Your task to perform on an android device: delete location history Image 0: 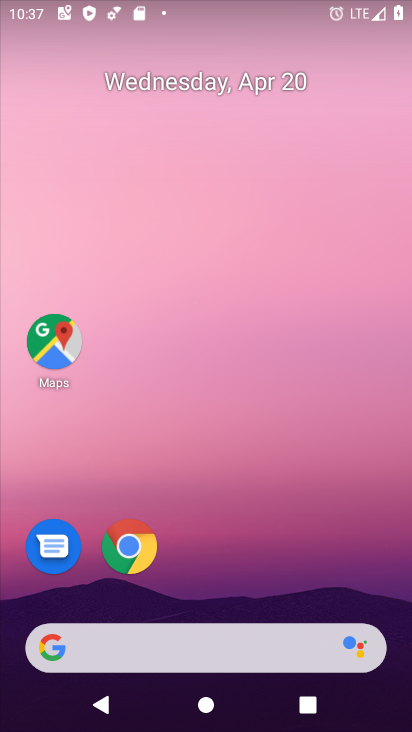
Step 0: drag from (222, 567) to (137, 218)
Your task to perform on an android device: delete location history Image 1: 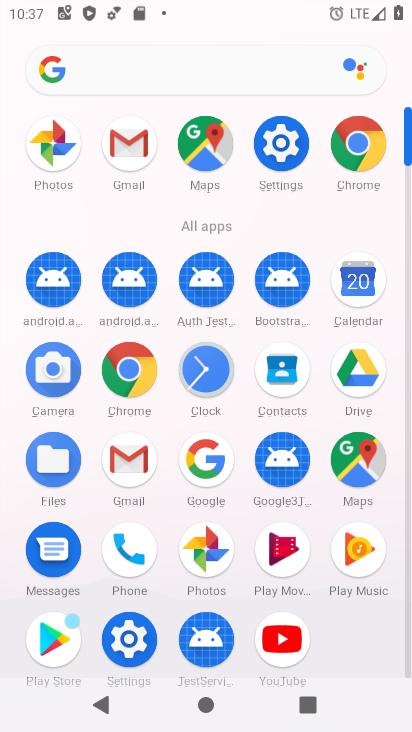
Step 1: click (359, 470)
Your task to perform on an android device: delete location history Image 2: 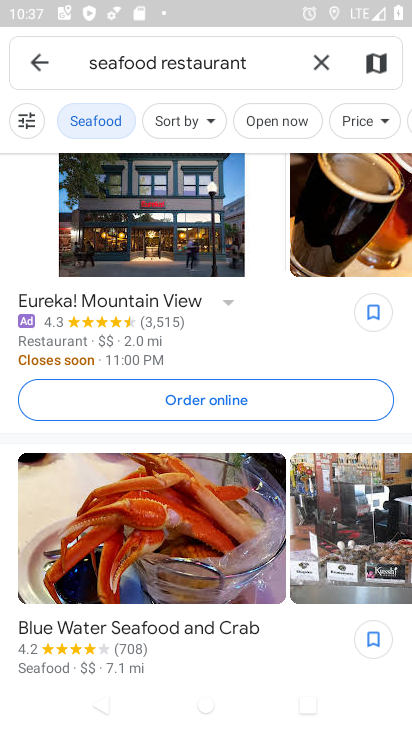
Step 2: click (37, 67)
Your task to perform on an android device: delete location history Image 3: 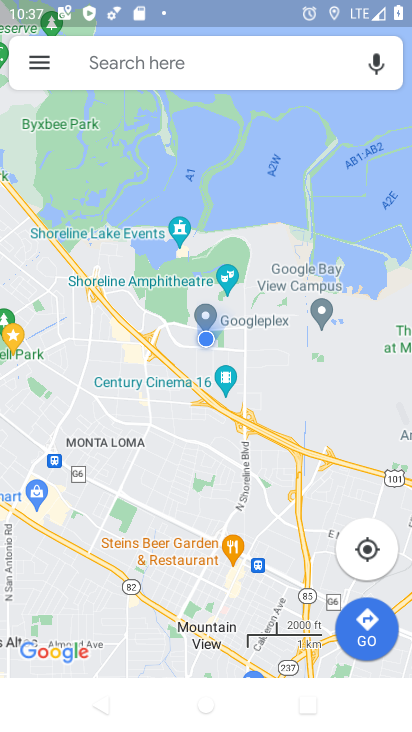
Step 3: click (37, 67)
Your task to perform on an android device: delete location history Image 4: 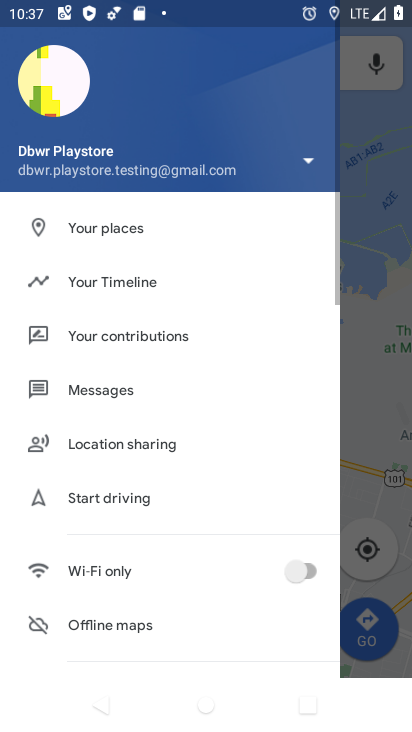
Step 4: drag from (91, 591) to (86, 228)
Your task to perform on an android device: delete location history Image 5: 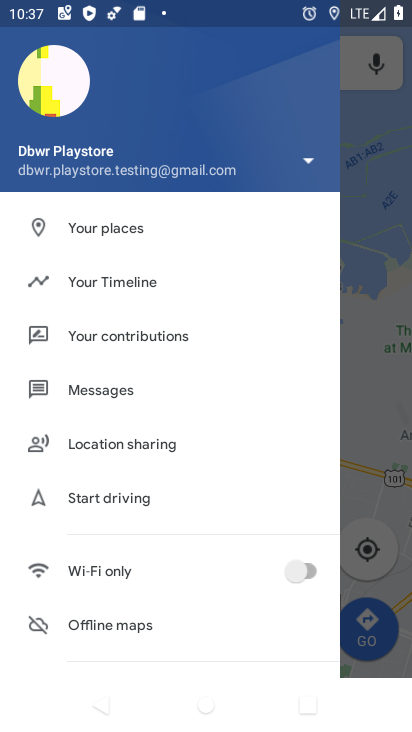
Step 5: drag from (166, 609) to (135, 259)
Your task to perform on an android device: delete location history Image 6: 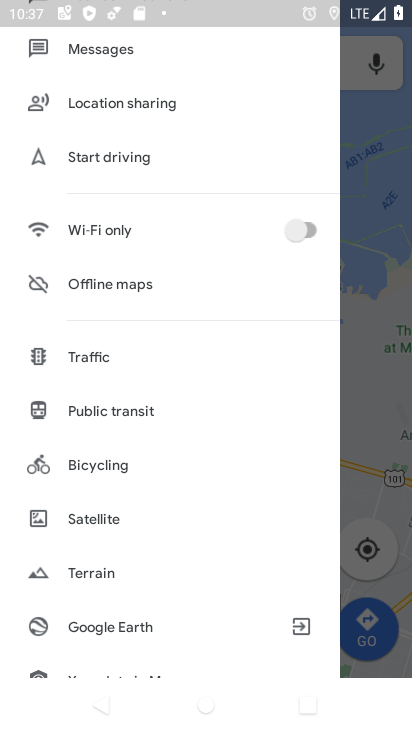
Step 6: drag from (88, 628) to (55, 102)
Your task to perform on an android device: delete location history Image 7: 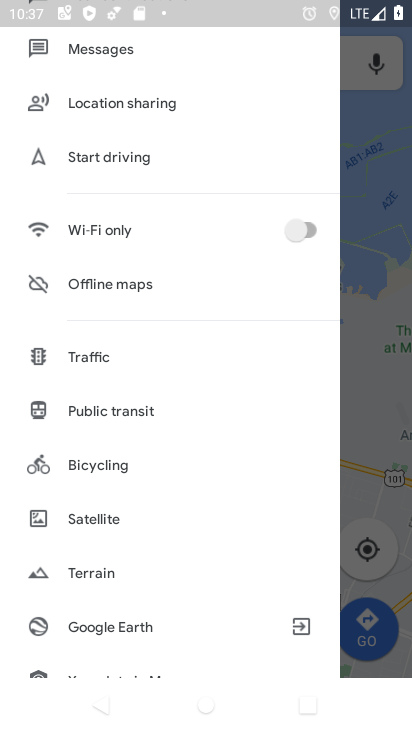
Step 7: drag from (185, 655) to (179, 239)
Your task to perform on an android device: delete location history Image 8: 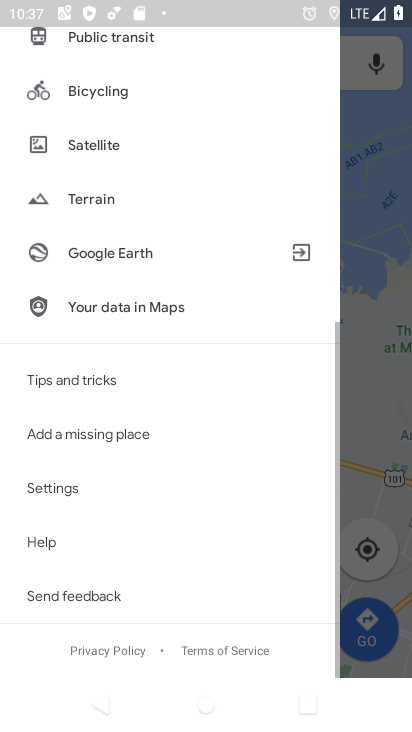
Step 8: click (51, 482)
Your task to perform on an android device: delete location history Image 9: 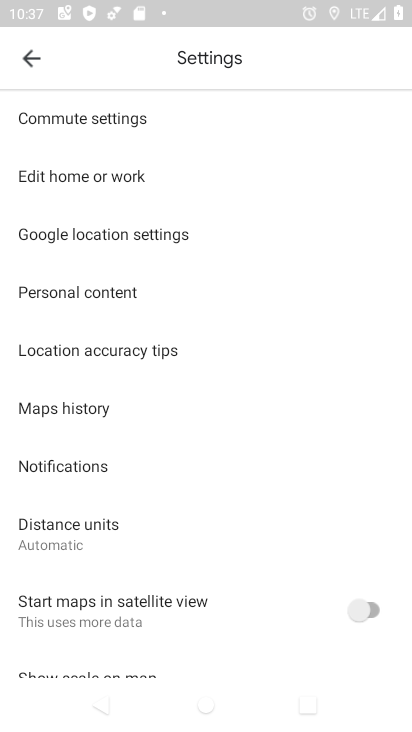
Step 9: drag from (133, 601) to (112, 394)
Your task to perform on an android device: delete location history Image 10: 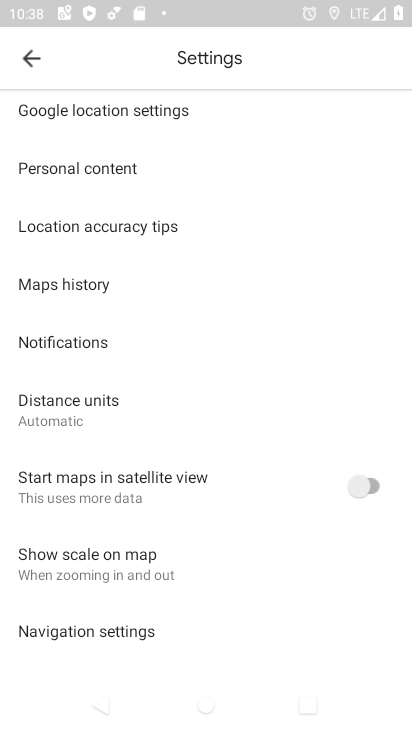
Step 10: drag from (150, 633) to (132, 315)
Your task to perform on an android device: delete location history Image 11: 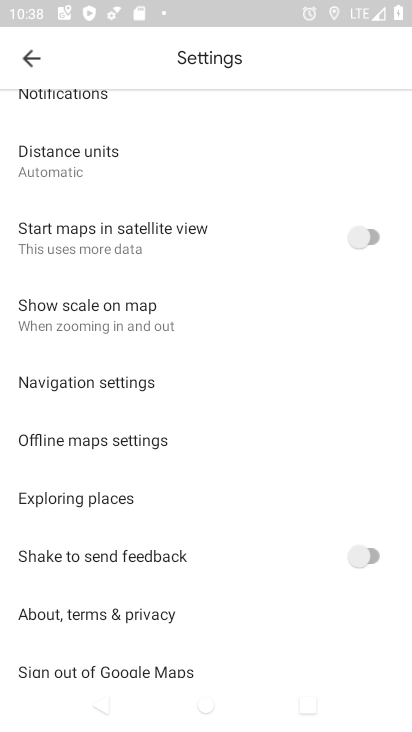
Step 11: click (145, 573)
Your task to perform on an android device: delete location history Image 12: 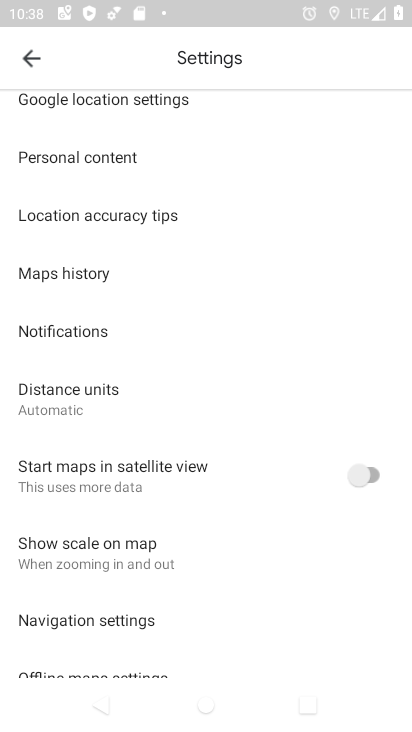
Step 12: click (74, 274)
Your task to perform on an android device: delete location history Image 13: 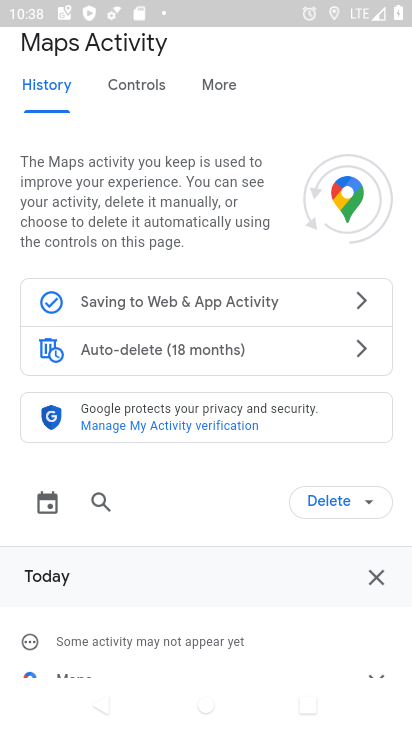
Step 13: drag from (261, 597) to (268, 409)
Your task to perform on an android device: delete location history Image 14: 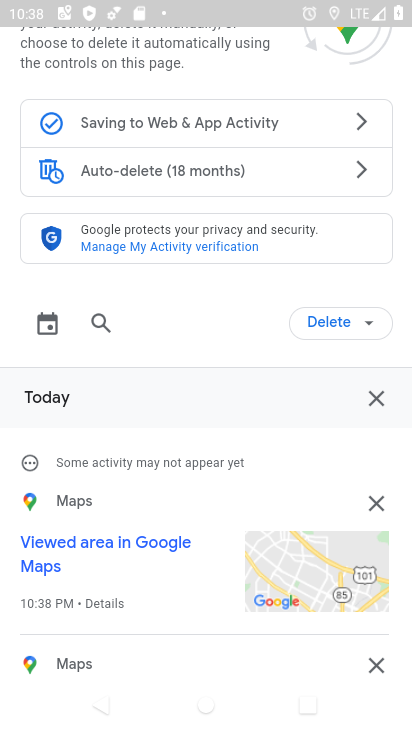
Step 14: click (332, 321)
Your task to perform on an android device: delete location history Image 15: 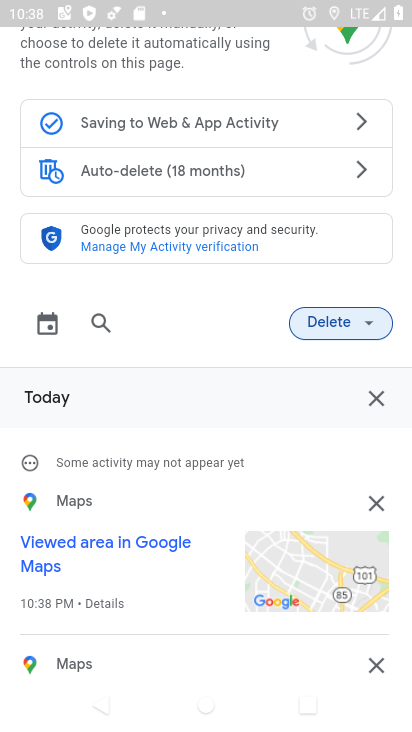
Step 15: click (364, 325)
Your task to perform on an android device: delete location history Image 16: 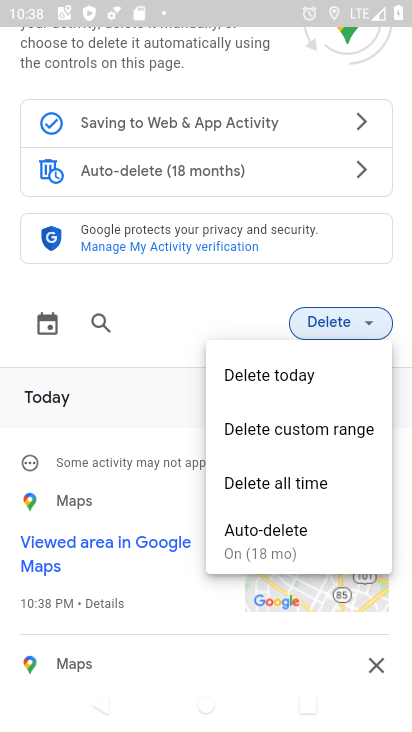
Step 16: click (290, 375)
Your task to perform on an android device: delete location history Image 17: 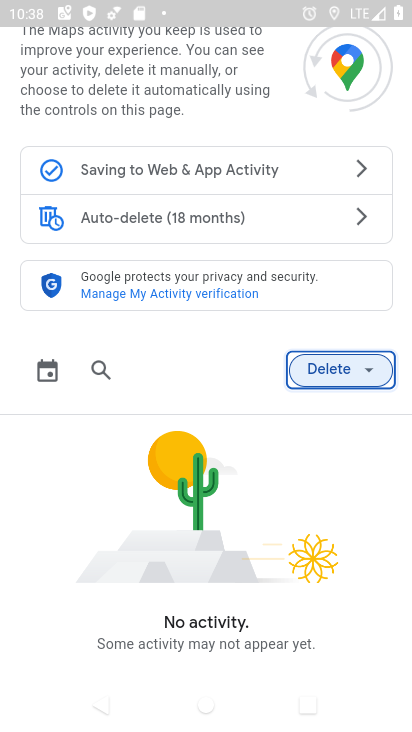
Step 17: task complete